Your task to perform on an android device: turn off javascript in the chrome app Image 0: 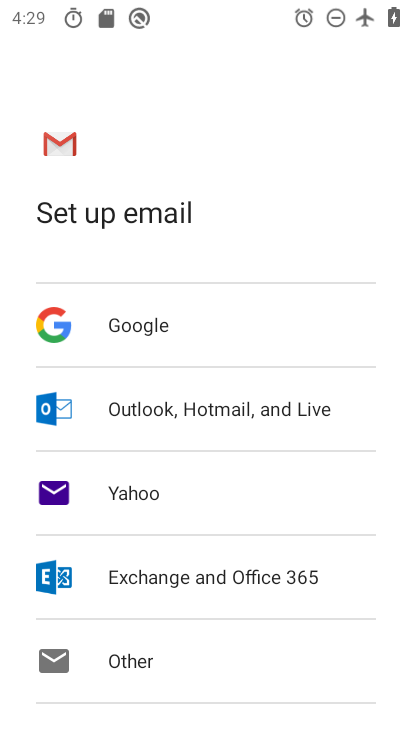
Step 0: press home button
Your task to perform on an android device: turn off javascript in the chrome app Image 1: 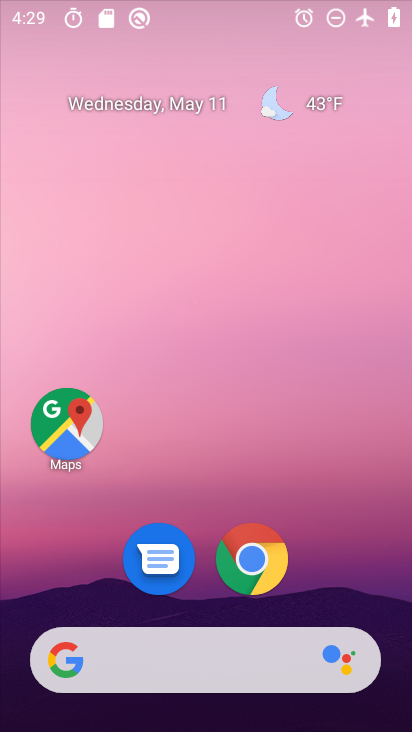
Step 1: drag from (339, 560) to (335, 721)
Your task to perform on an android device: turn off javascript in the chrome app Image 2: 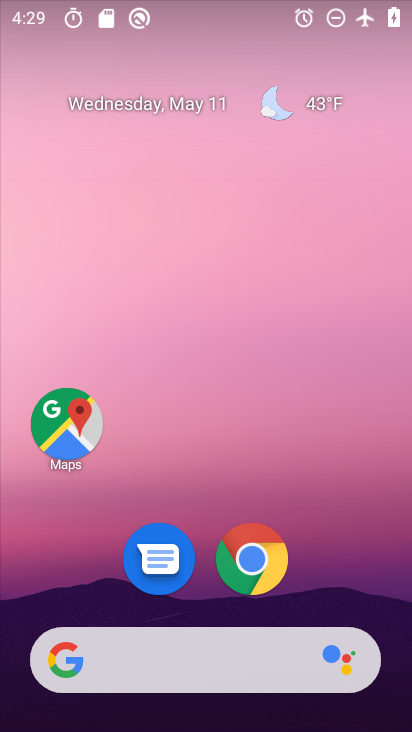
Step 2: click (263, 566)
Your task to perform on an android device: turn off javascript in the chrome app Image 3: 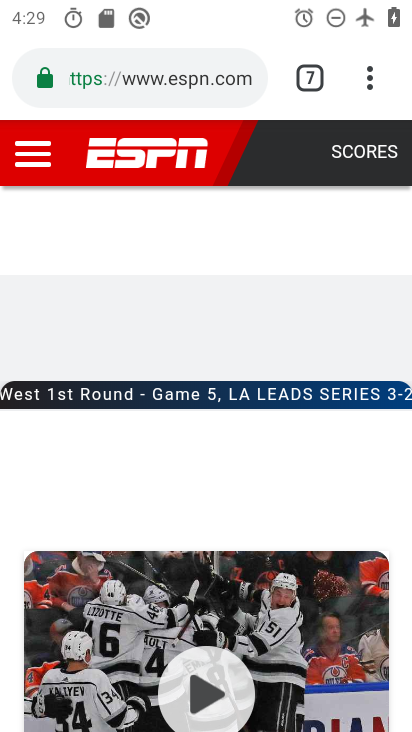
Step 3: click (371, 59)
Your task to perform on an android device: turn off javascript in the chrome app Image 4: 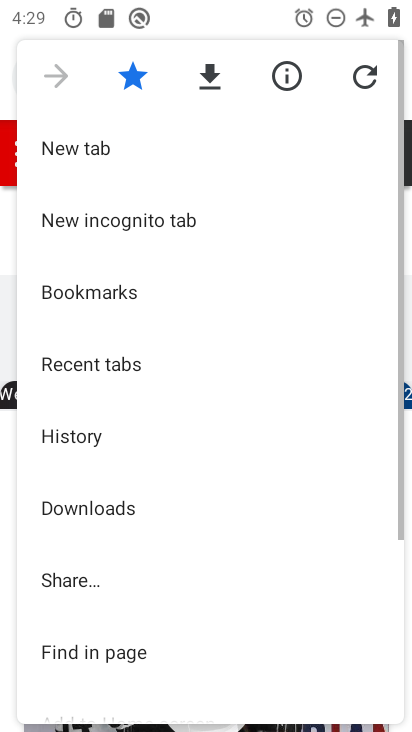
Step 4: drag from (171, 501) to (132, 188)
Your task to perform on an android device: turn off javascript in the chrome app Image 5: 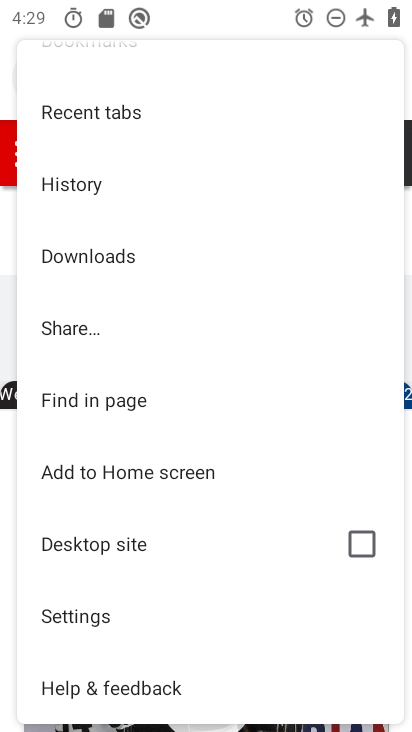
Step 5: click (124, 614)
Your task to perform on an android device: turn off javascript in the chrome app Image 6: 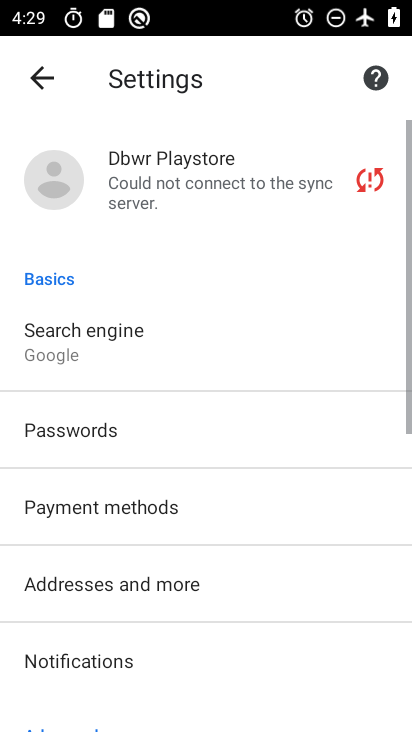
Step 6: drag from (215, 592) to (202, 151)
Your task to perform on an android device: turn off javascript in the chrome app Image 7: 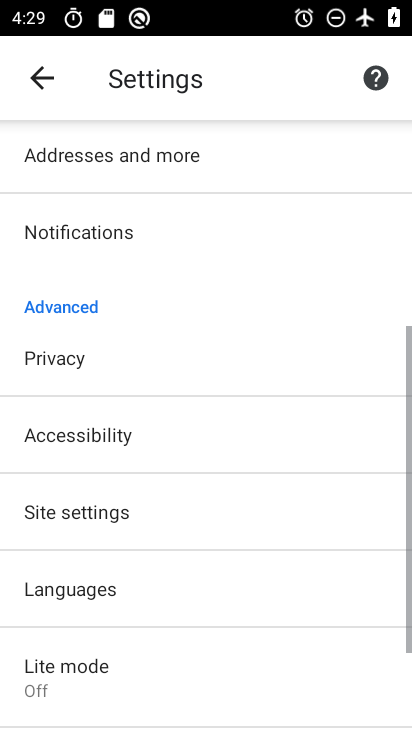
Step 7: click (134, 496)
Your task to perform on an android device: turn off javascript in the chrome app Image 8: 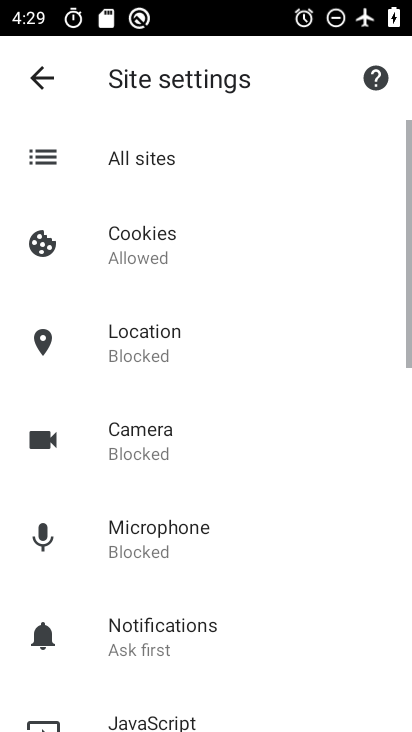
Step 8: drag from (216, 623) to (227, 402)
Your task to perform on an android device: turn off javascript in the chrome app Image 9: 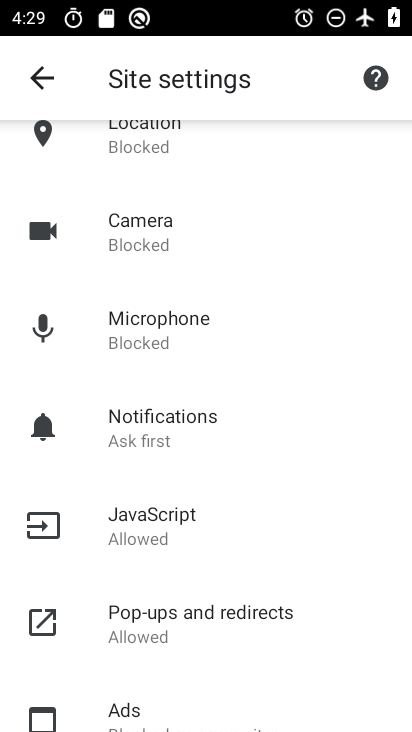
Step 9: click (168, 532)
Your task to perform on an android device: turn off javascript in the chrome app Image 10: 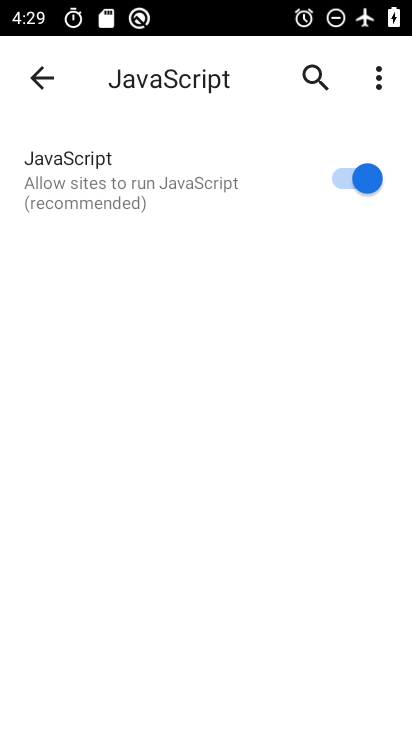
Step 10: click (356, 177)
Your task to perform on an android device: turn off javascript in the chrome app Image 11: 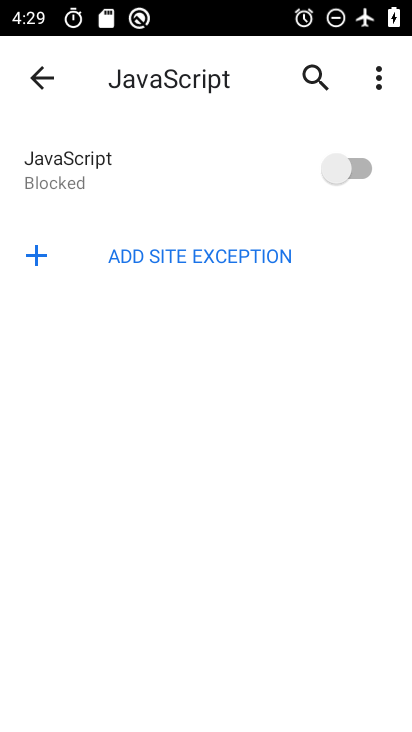
Step 11: task complete